Your task to perform on an android device: turn off translation in the chrome app Image 0: 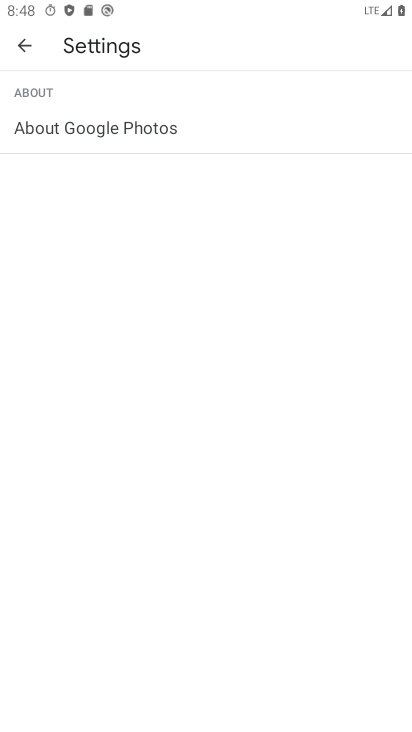
Step 0: press home button
Your task to perform on an android device: turn off translation in the chrome app Image 1: 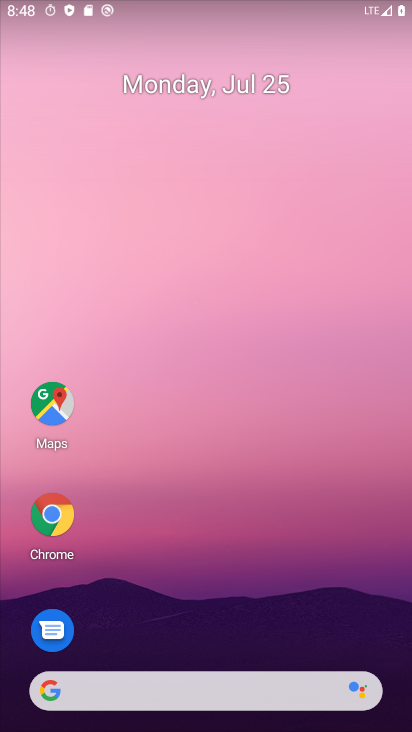
Step 1: click (61, 529)
Your task to perform on an android device: turn off translation in the chrome app Image 2: 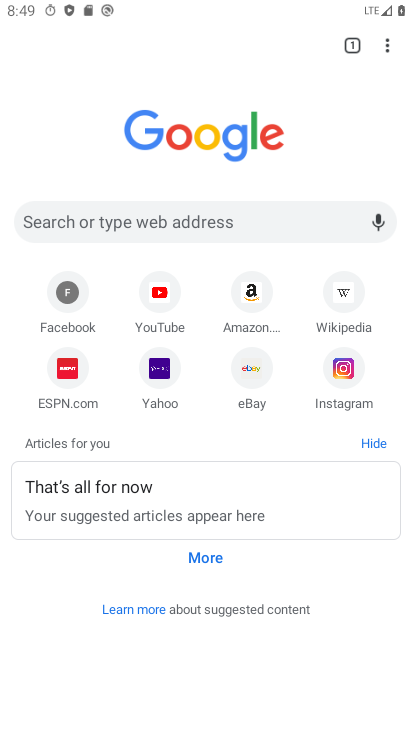
Step 2: click (388, 39)
Your task to perform on an android device: turn off translation in the chrome app Image 3: 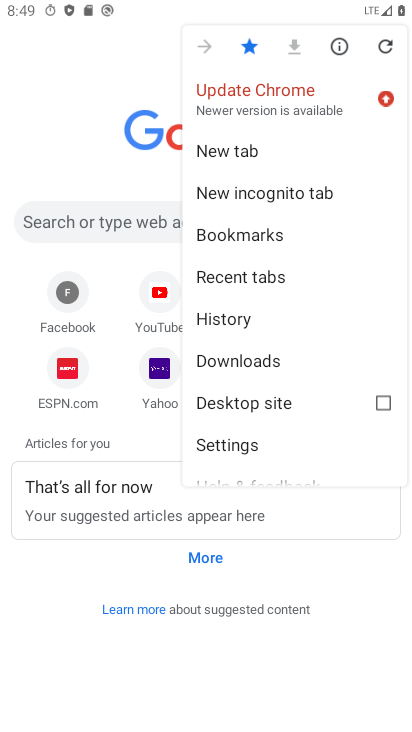
Step 3: click (226, 440)
Your task to perform on an android device: turn off translation in the chrome app Image 4: 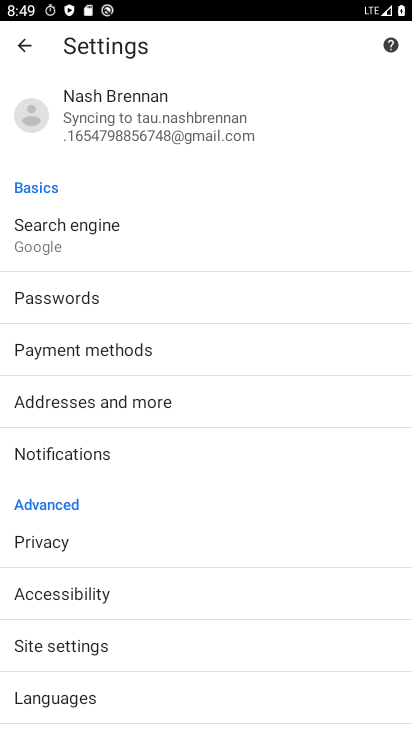
Step 4: click (53, 686)
Your task to perform on an android device: turn off translation in the chrome app Image 5: 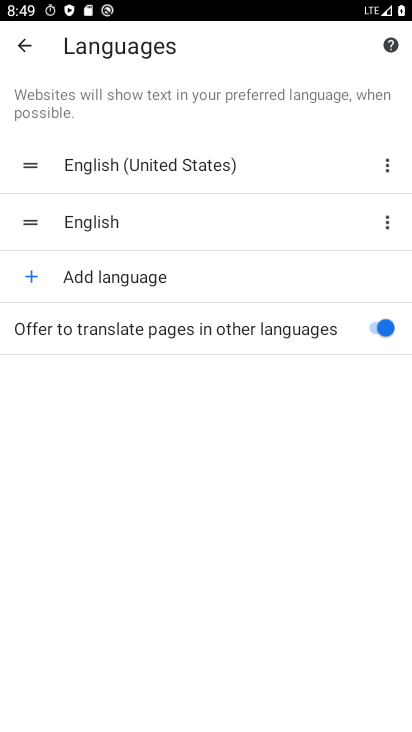
Step 5: click (390, 329)
Your task to perform on an android device: turn off translation in the chrome app Image 6: 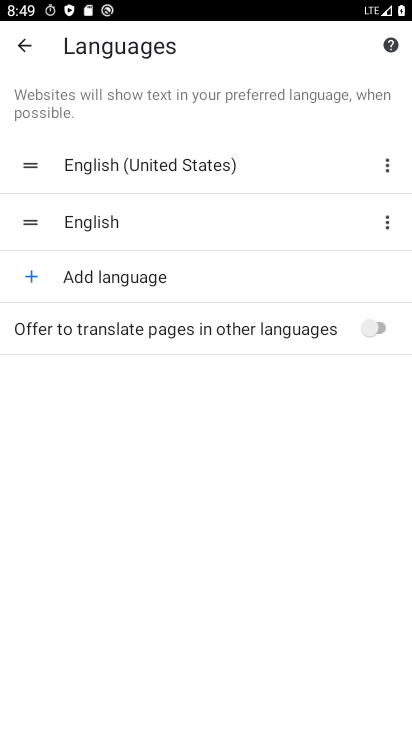
Step 6: task complete